Your task to perform on an android device: Clear the cart on ebay. Add razer blackwidow to the cart on ebay Image 0: 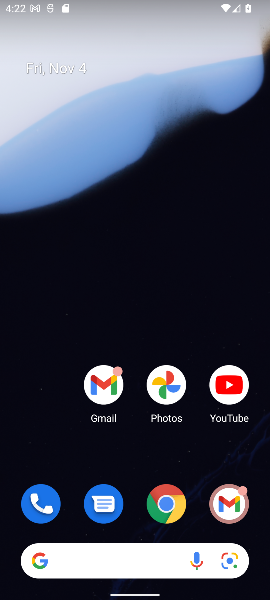
Step 0: click (173, 505)
Your task to perform on an android device: Clear the cart on ebay. Add razer blackwidow to the cart on ebay Image 1: 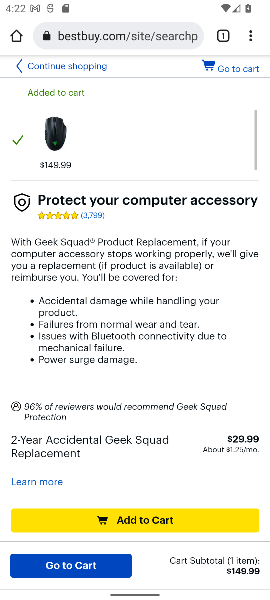
Step 1: click (108, 41)
Your task to perform on an android device: Clear the cart on ebay. Add razer blackwidow to the cart on ebay Image 2: 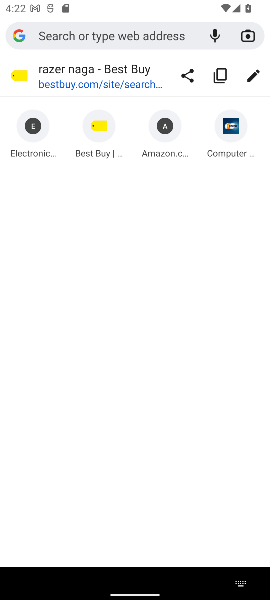
Step 2: type "ebay"
Your task to perform on an android device: Clear the cart on ebay. Add razer blackwidow to the cart on ebay Image 3: 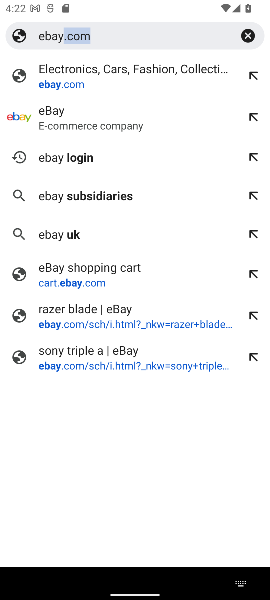
Step 3: click (45, 77)
Your task to perform on an android device: Clear the cart on ebay. Add razer blackwidow to the cart on ebay Image 4: 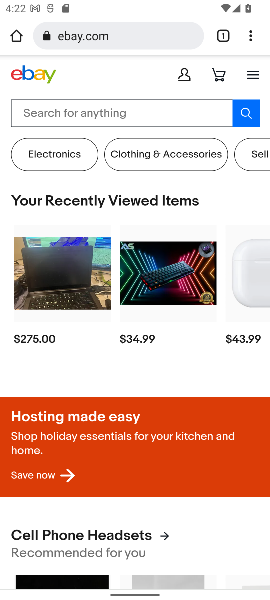
Step 4: click (218, 71)
Your task to perform on an android device: Clear the cart on ebay. Add razer blackwidow to the cart on ebay Image 5: 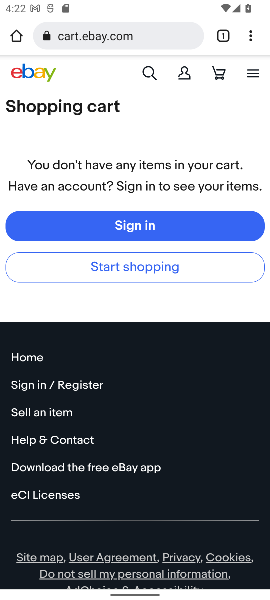
Step 5: click (144, 74)
Your task to perform on an android device: Clear the cart on ebay. Add razer blackwidow to the cart on ebay Image 6: 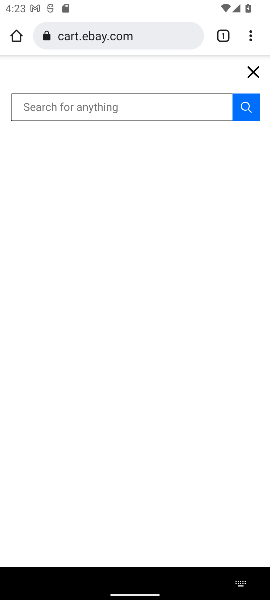
Step 6: type " razer blackwidow"
Your task to perform on an android device: Clear the cart on ebay. Add razer blackwidow to the cart on ebay Image 7: 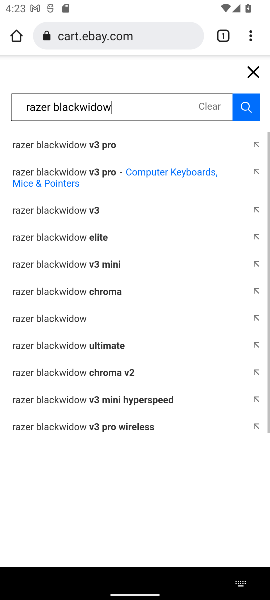
Step 7: click (56, 318)
Your task to perform on an android device: Clear the cart on ebay. Add razer blackwidow to the cart on ebay Image 8: 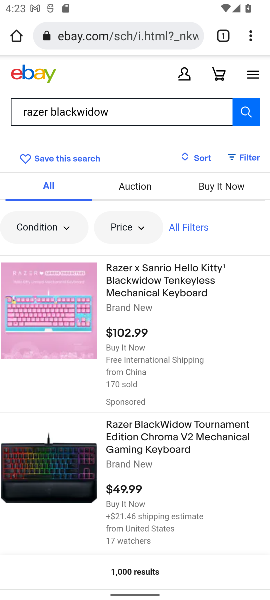
Step 8: click (76, 455)
Your task to perform on an android device: Clear the cart on ebay. Add razer blackwidow to the cart on ebay Image 9: 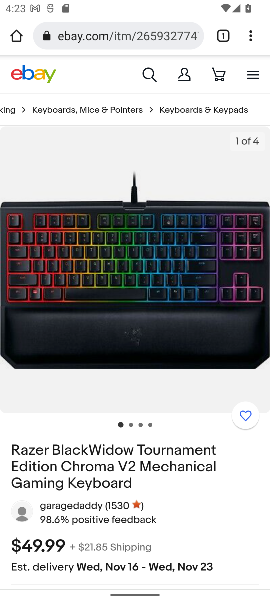
Step 9: drag from (143, 482) to (134, 274)
Your task to perform on an android device: Clear the cart on ebay. Add razer blackwidow to the cart on ebay Image 10: 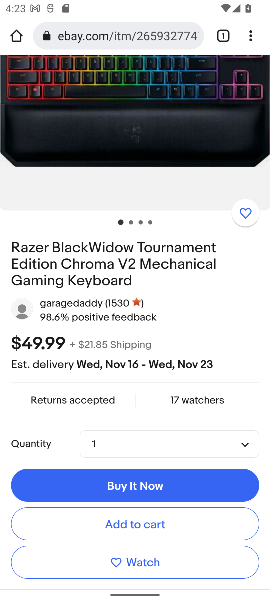
Step 10: click (135, 527)
Your task to perform on an android device: Clear the cart on ebay. Add razer blackwidow to the cart on ebay Image 11: 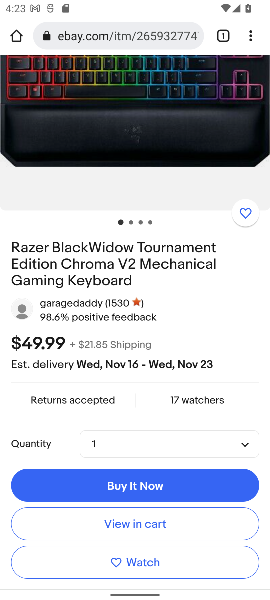
Step 11: task complete